Your task to perform on an android device: turn on showing notifications on the lock screen Image 0: 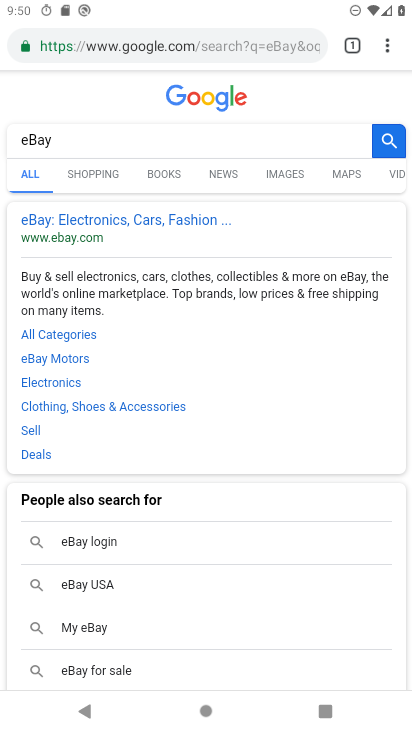
Step 0: press home button
Your task to perform on an android device: turn on showing notifications on the lock screen Image 1: 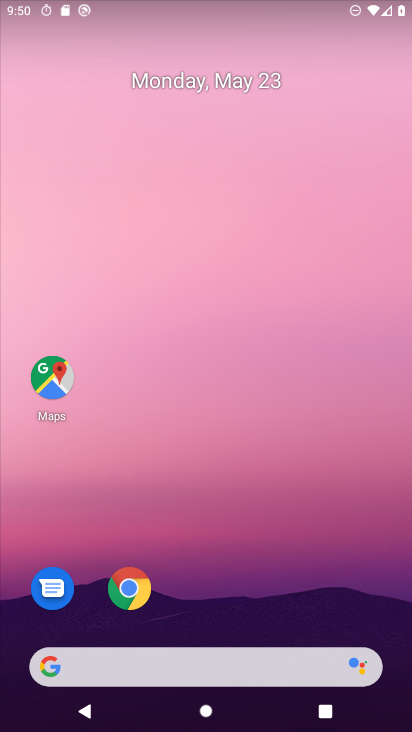
Step 1: drag from (392, 695) to (374, 60)
Your task to perform on an android device: turn on showing notifications on the lock screen Image 2: 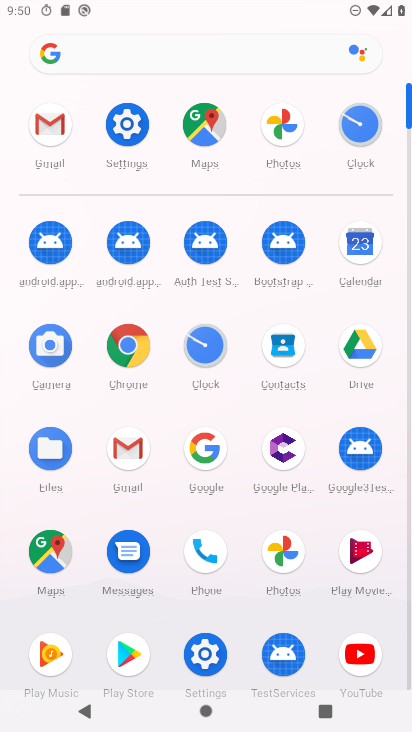
Step 2: click (193, 654)
Your task to perform on an android device: turn on showing notifications on the lock screen Image 3: 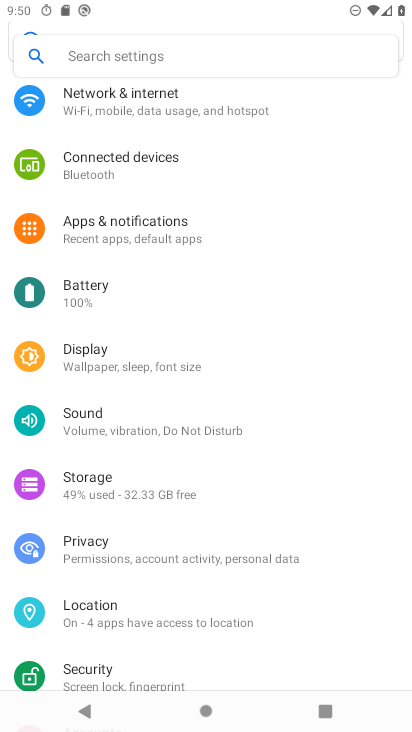
Step 3: click (139, 225)
Your task to perform on an android device: turn on showing notifications on the lock screen Image 4: 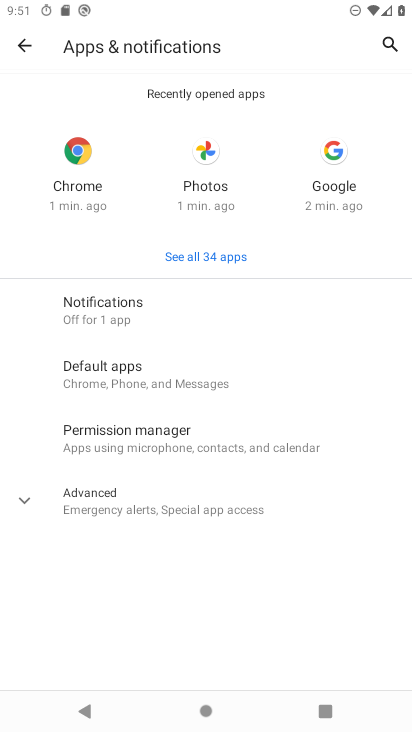
Step 4: click (108, 298)
Your task to perform on an android device: turn on showing notifications on the lock screen Image 5: 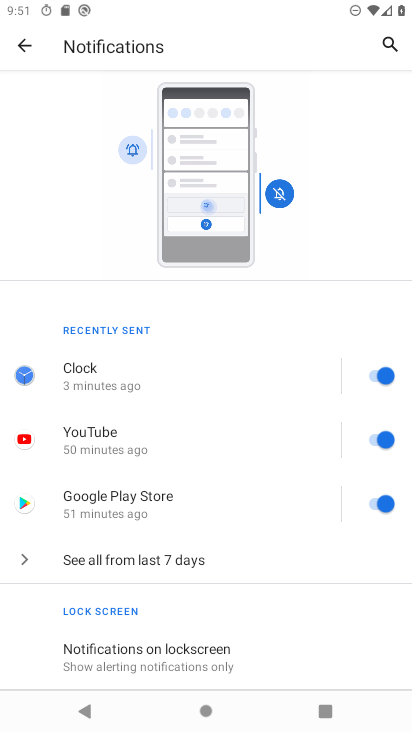
Step 5: drag from (306, 660) to (324, 304)
Your task to perform on an android device: turn on showing notifications on the lock screen Image 6: 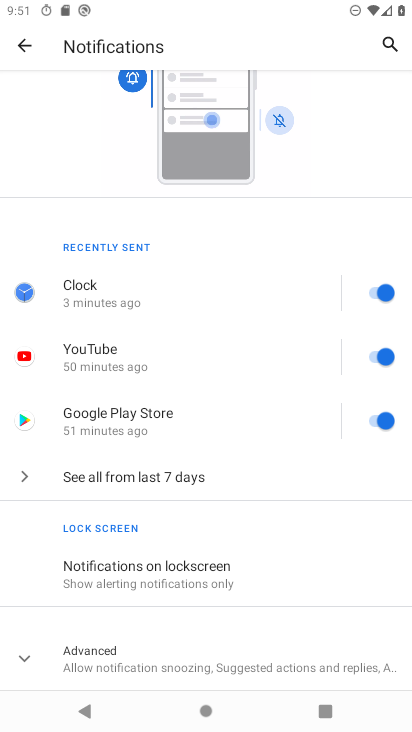
Step 6: click (113, 574)
Your task to perform on an android device: turn on showing notifications on the lock screen Image 7: 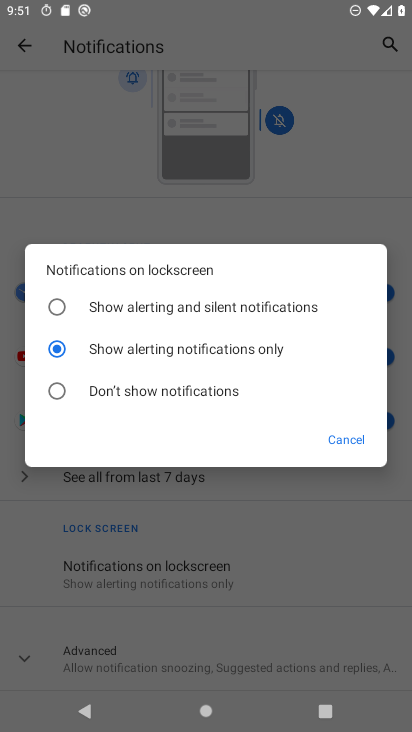
Step 7: click (49, 306)
Your task to perform on an android device: turn on showing notifications on the lock screen Image 8: 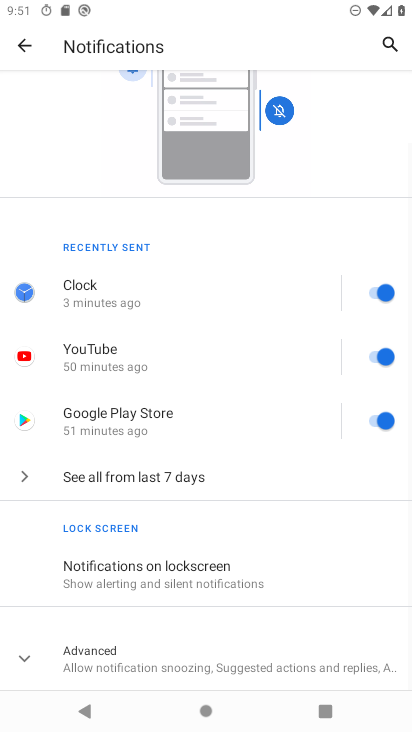
Step 8: task complete